Your task to perform on an android device: open app "Roku - Official Remote Control" Image 0: 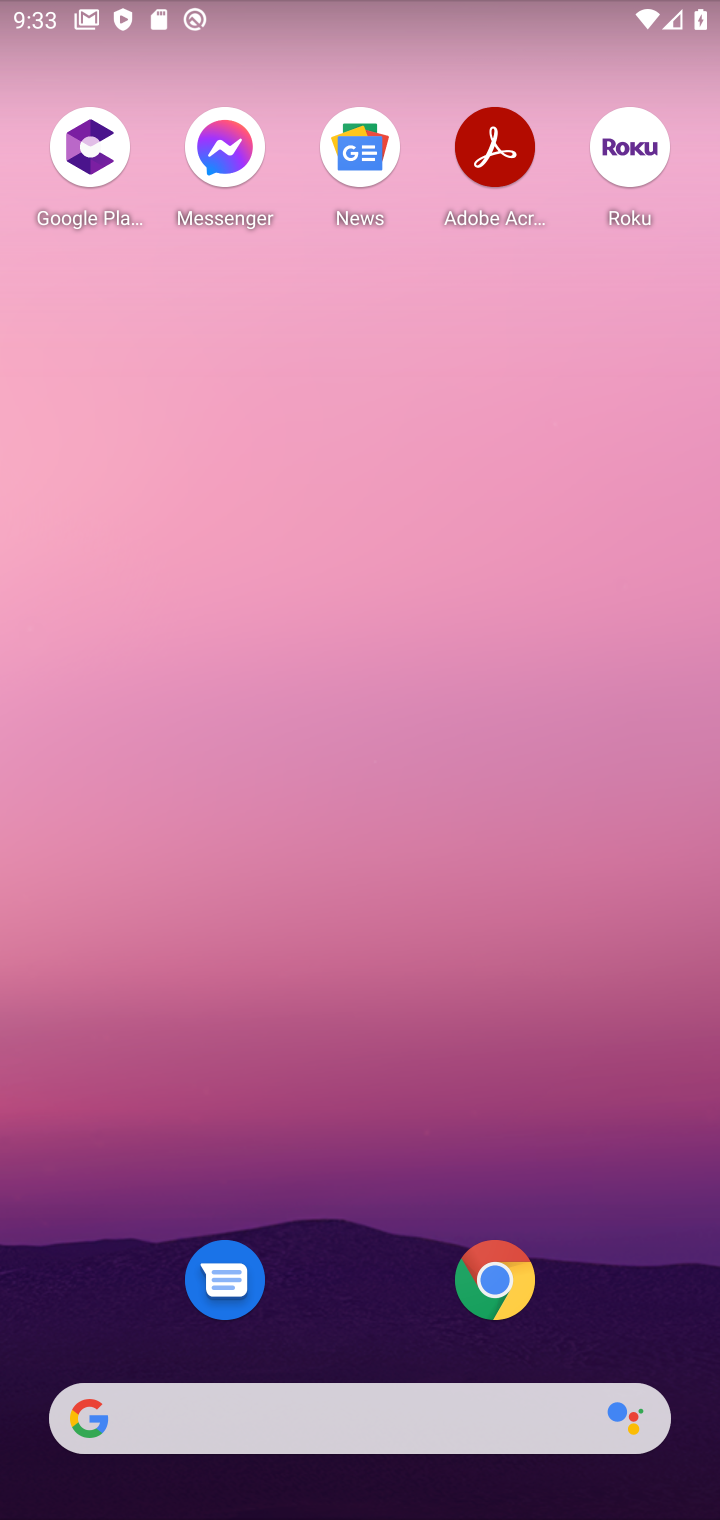
Step 0: drag from (305, 591) to (372, 23)
Your task to perform on an android device: open app "Roku - Official Remote Control" Image 1: 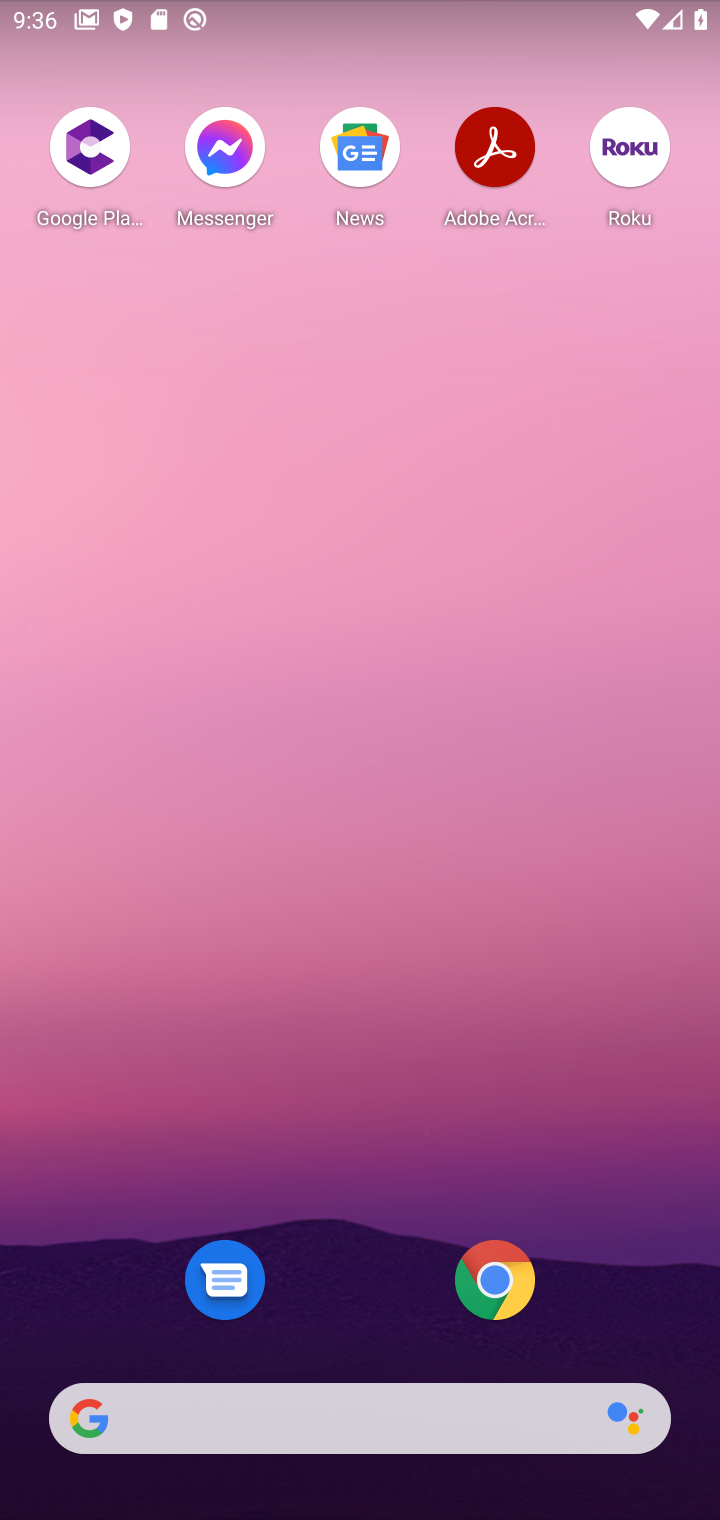
Step 1: drag from (298, 1319) to (167, 1)
Your task to perform on an android device: open app "Roku - Official Remote Control" Image 2: 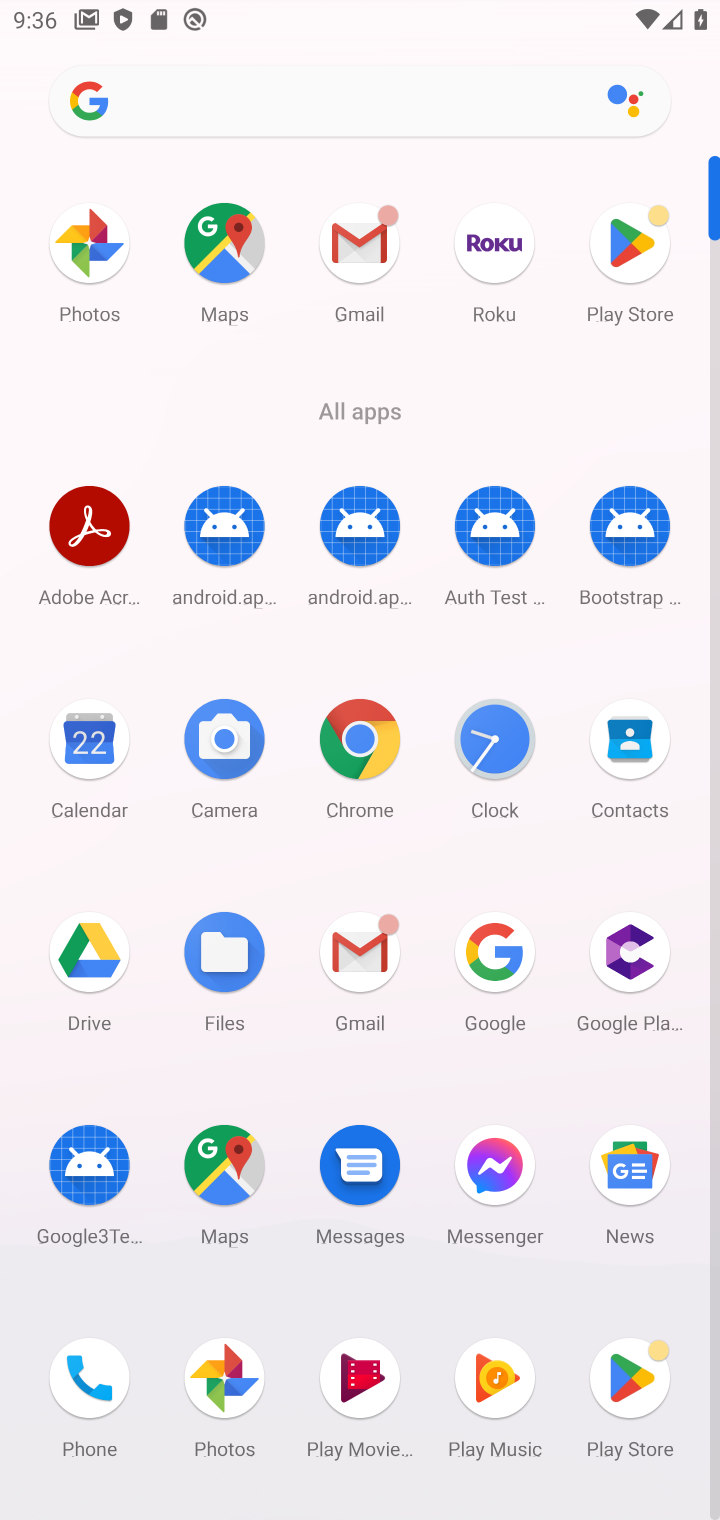
Step 2: click (614, 265)
Your task to perform on an android device: open app "Roku - Official Remote Control" Image 3: 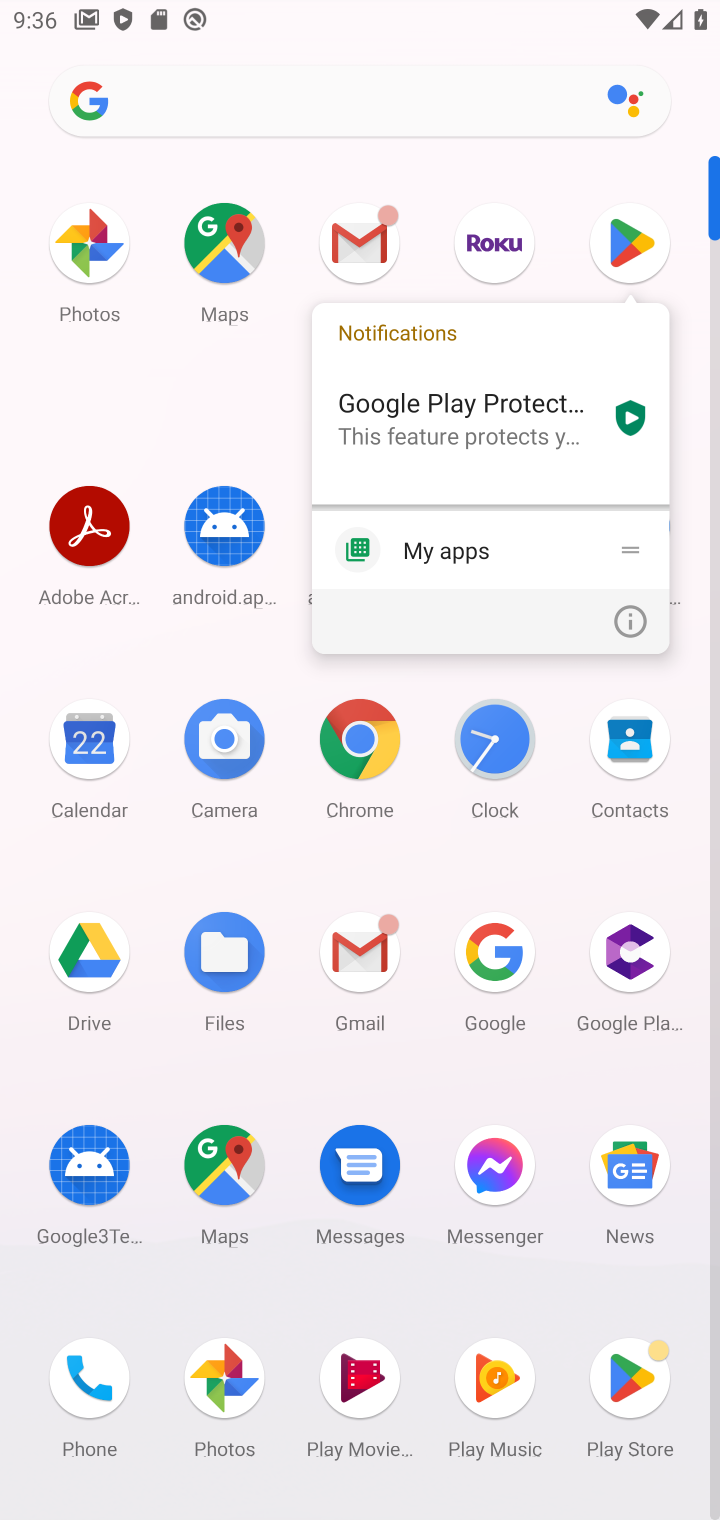
Step 3: click (606, 261)
Your task to perform on an android device: open app "Roku - Official Remote Control" Image 4: 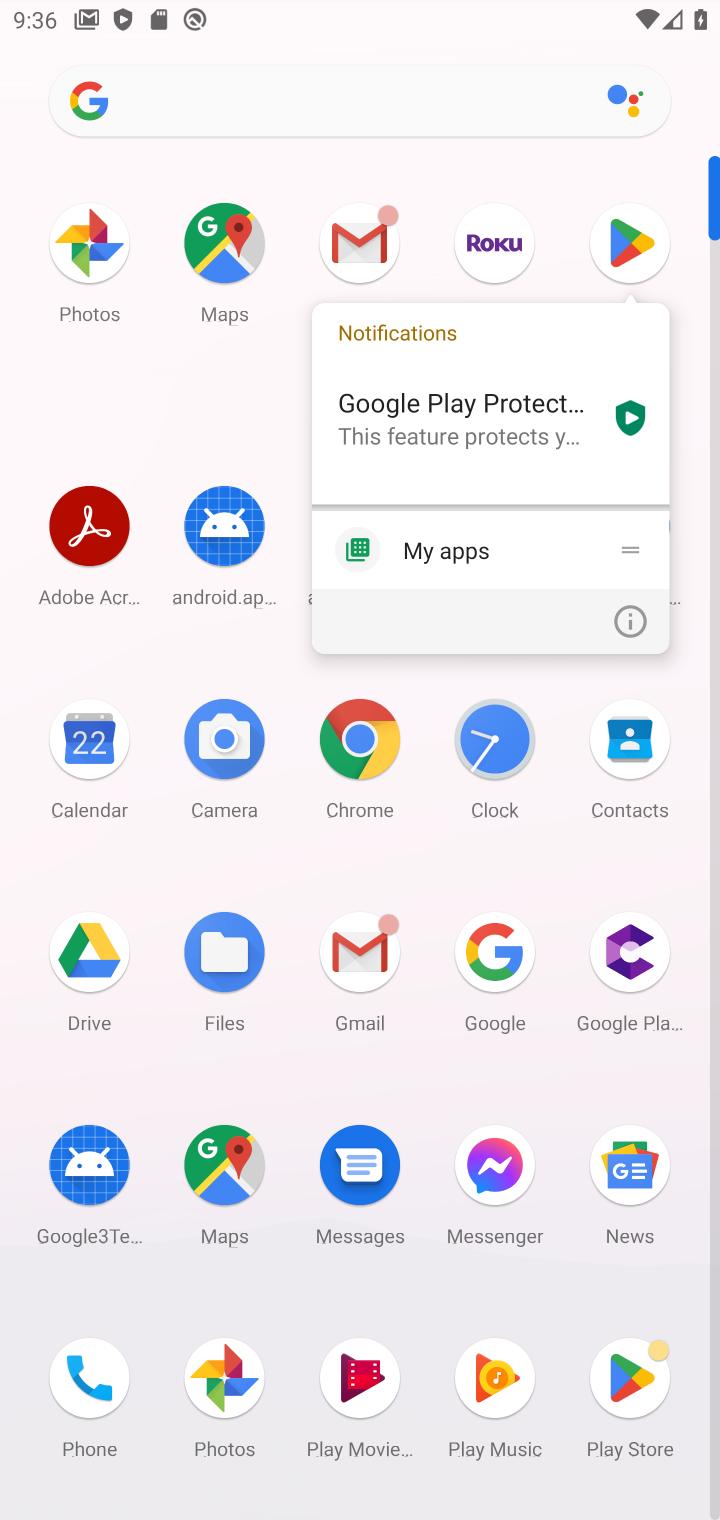
Step 4: click (624, 223)
Your task to perform on an android device: open app "Roku - Official Remote Control" Image 5: 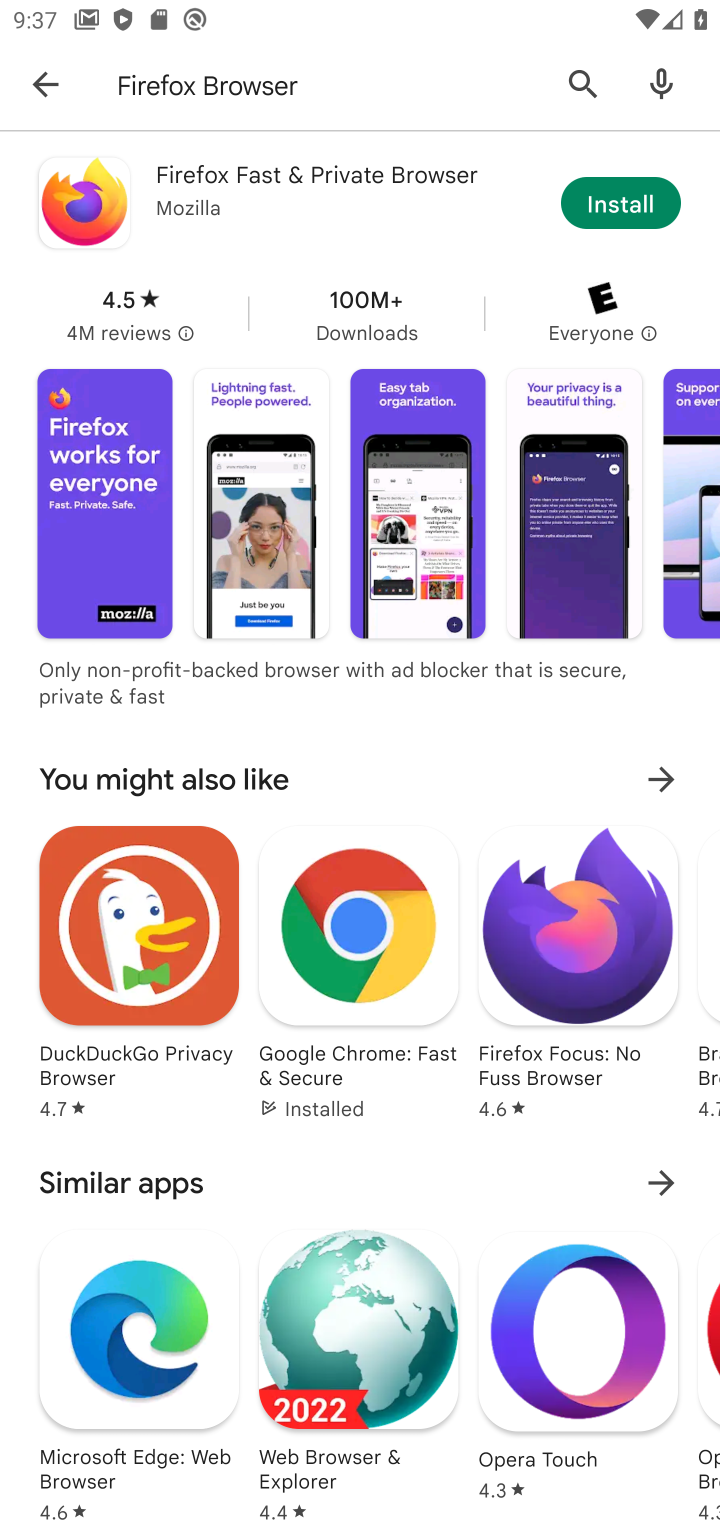
Step 5: click (38, 93)
Your task to perform on an android device: open app "Roku - Official Remote Control" Image 6: 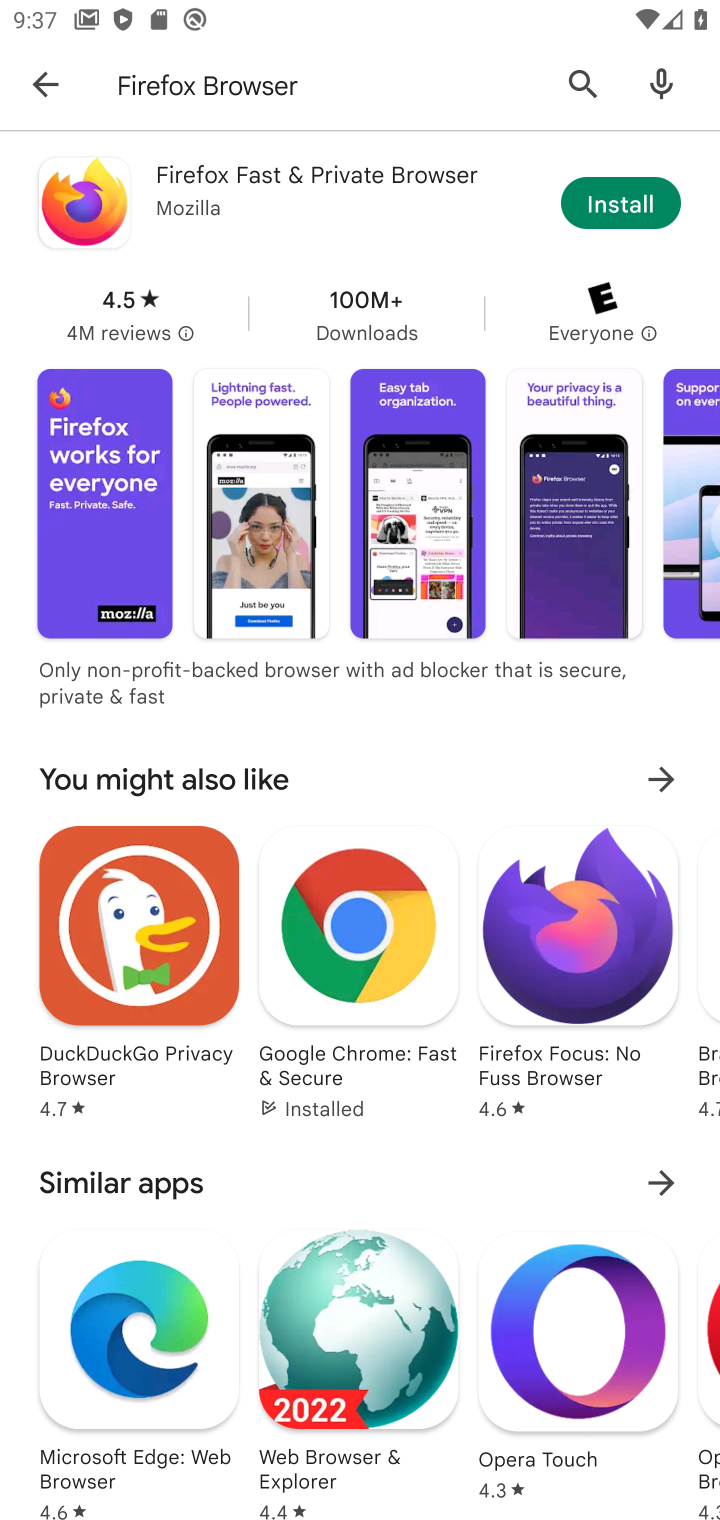
Step 6: press back button
Your task to perform on an android device: open app "Roku - Official Remote Control" Image 7: 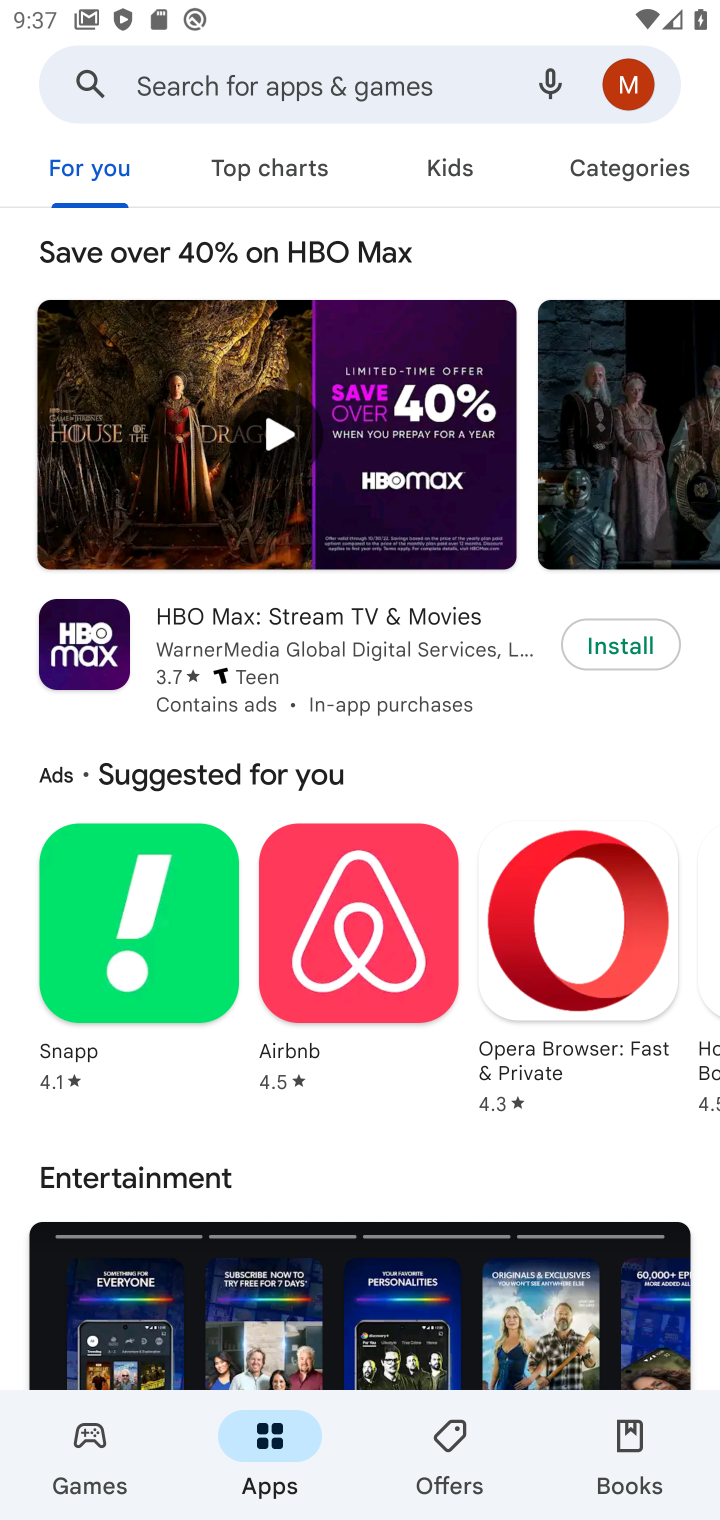
Step 7: click (247, 91)
Your task to perform on an android device: open app "Roku - Official Remote Control" Image 8: 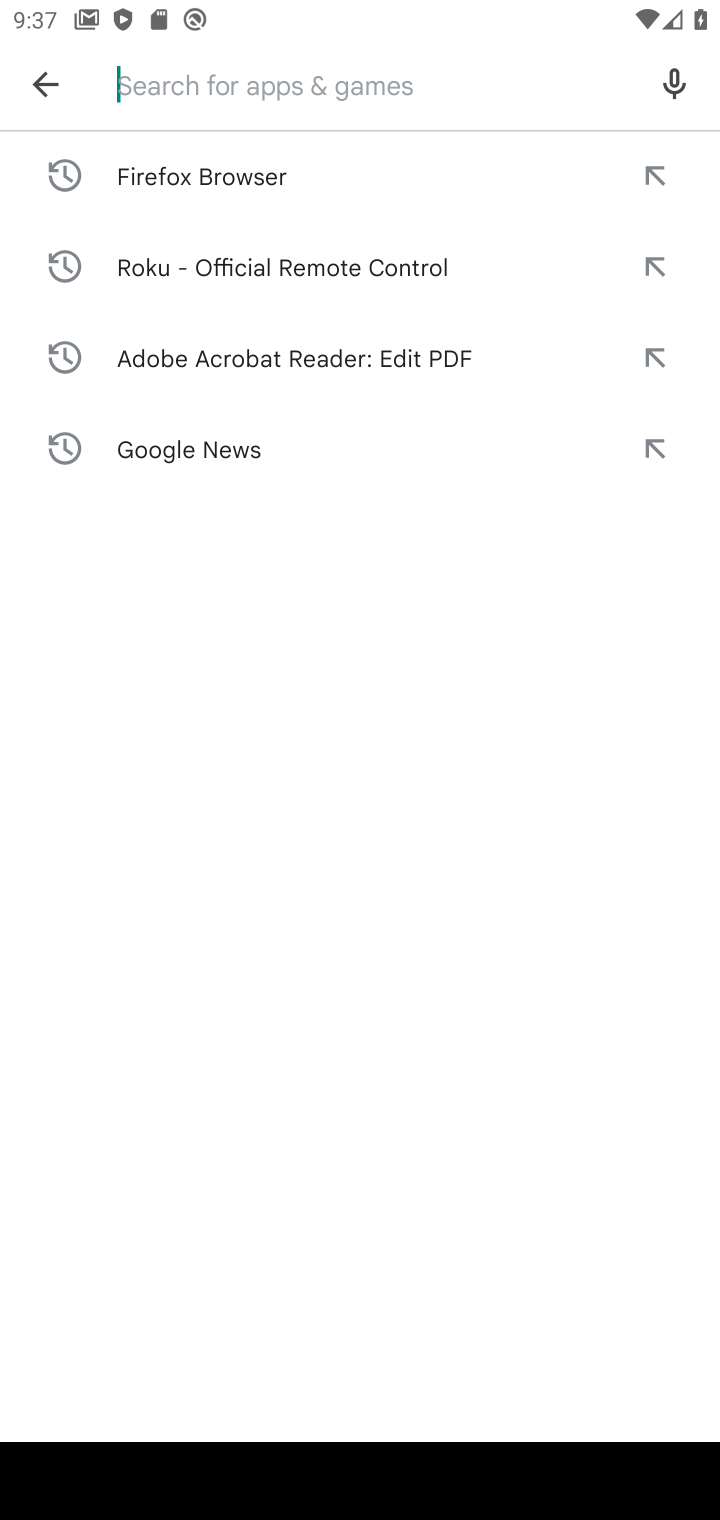
Step 8: type "Roku - Official Remote Control"
Your task to perform on an android device: open app "Roku - Official Remote Control" Image 9: 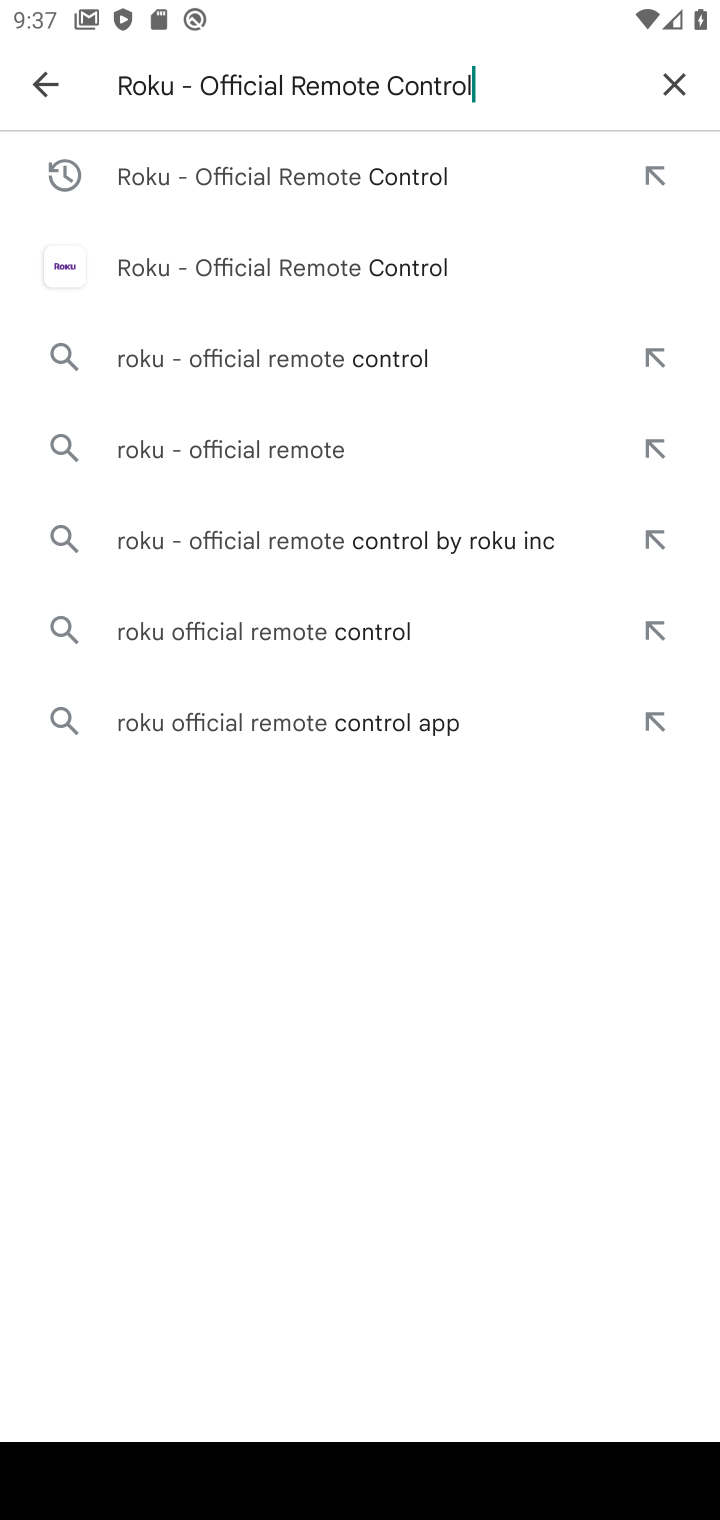
Step 9: press enter
Your task to perform on an android device: open app "Roku - Official Remote Control" Image 10: 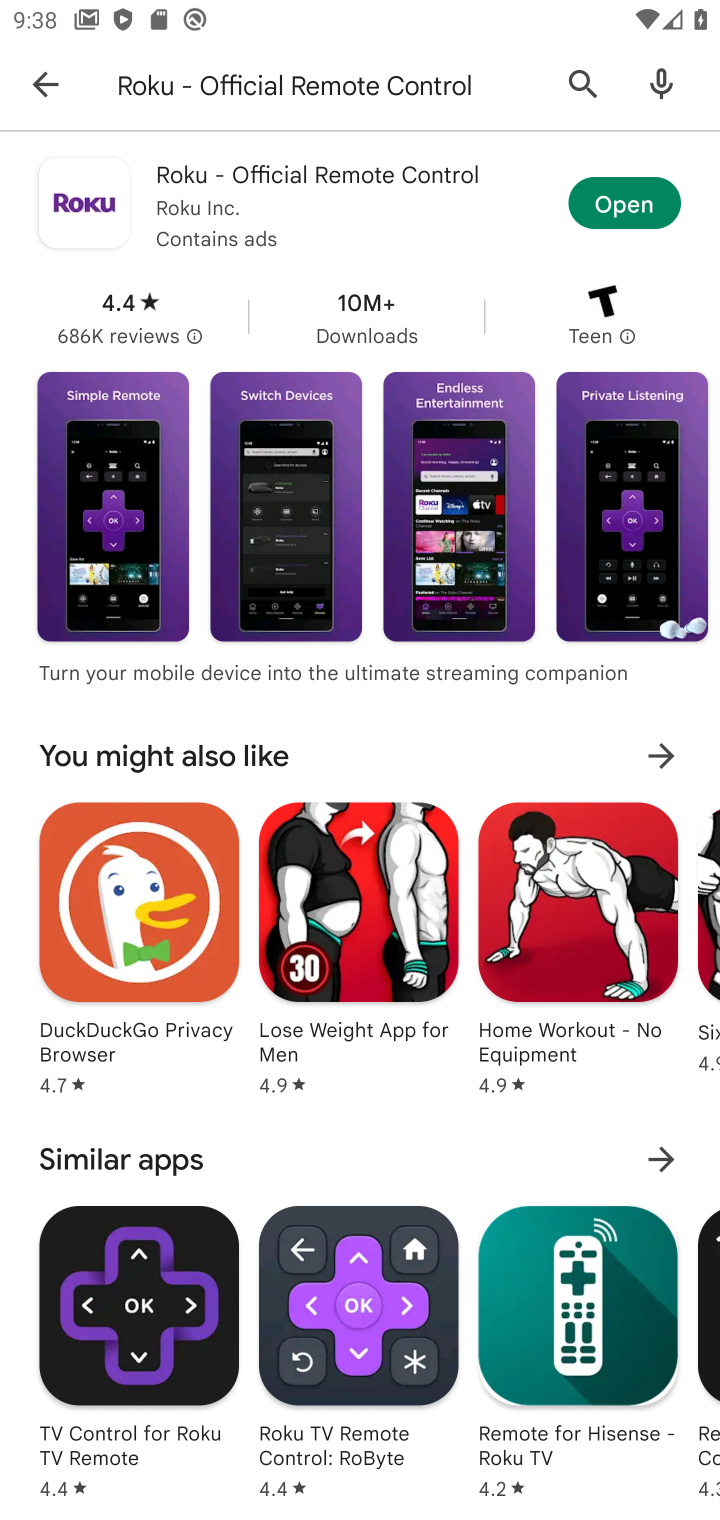
Step 10: click (596, 211)
Your task to perform on an android device: open app "Roku - Official Remote Control" Image 11: 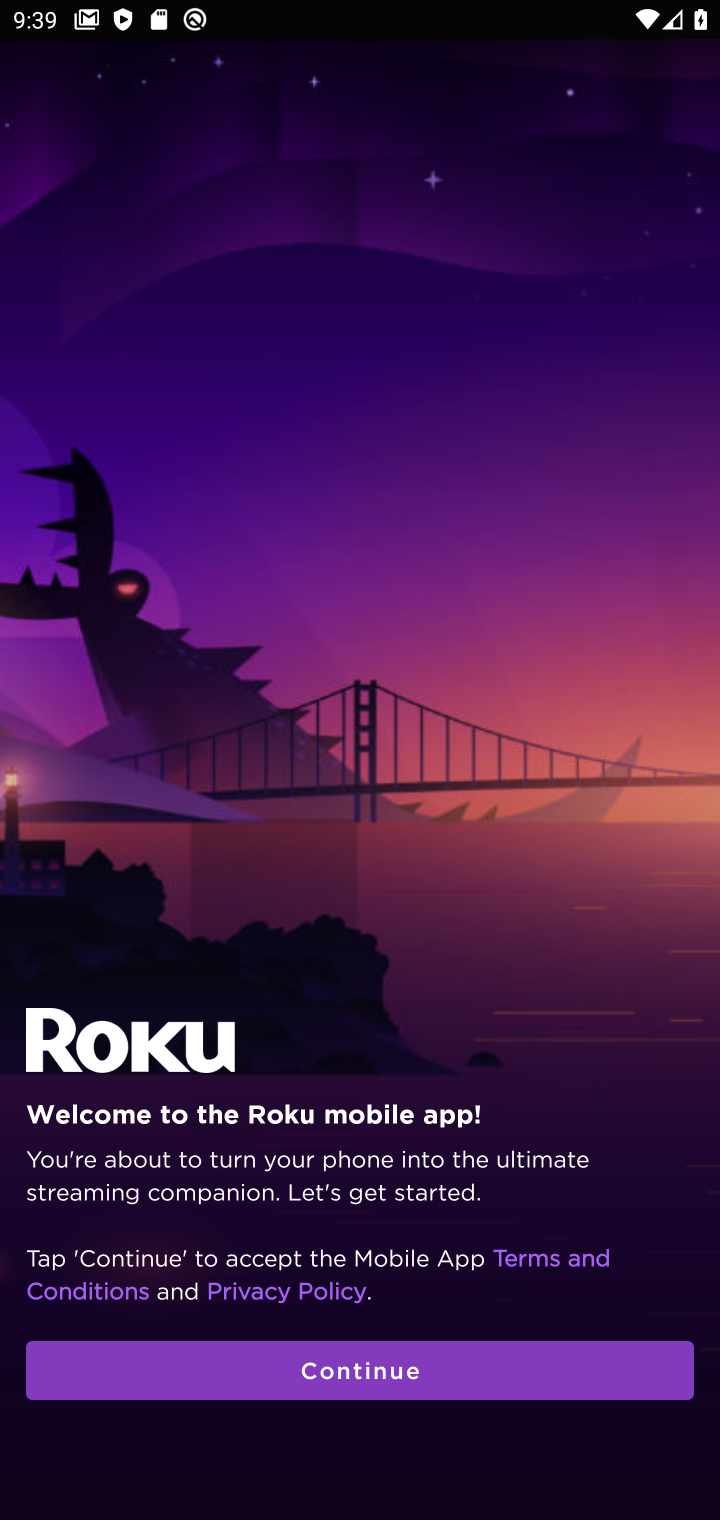
Step 11: task complete